Your task to perform on an android device: Open Chrome and go to settings Image 0: 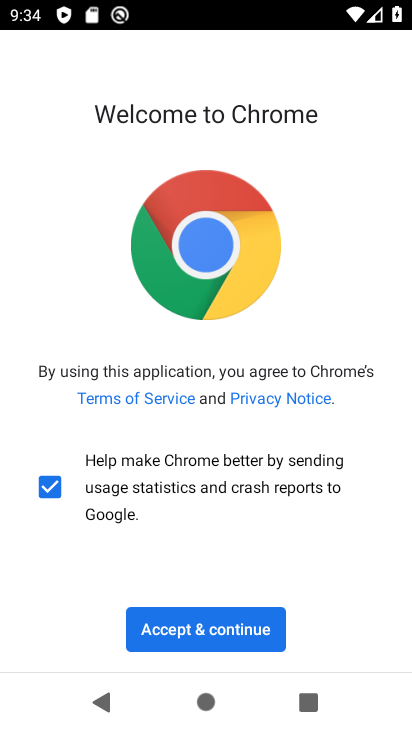
Step 0: click (208, 628)
Your task to perform on an android device: Open Chrome and go to settings Image 1: 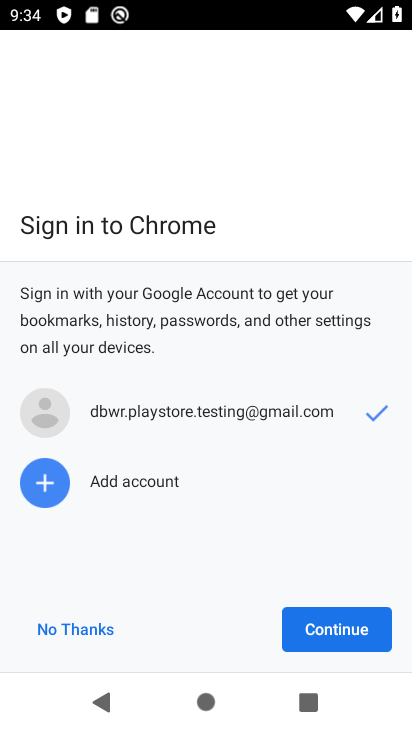
Step 1: click (317, 622)
Your task to perform on an android device: Open Chrome and go to settings Image 2: 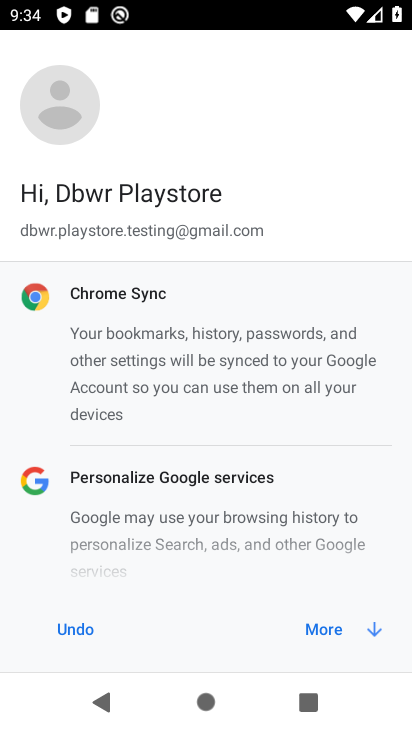
Step 2: click (317, 622)
Your task to perform on an android device: Open Chrome and go to settings Image 3: 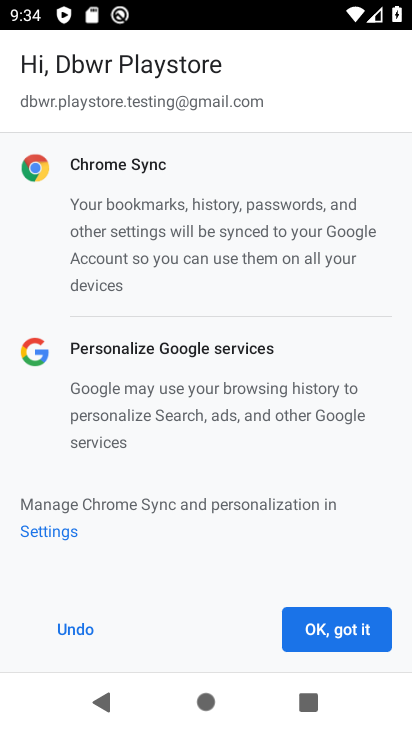
Step 3: click (317, 622)
Your task to perform on an android device: Open Chrome and go to settings Image 4: 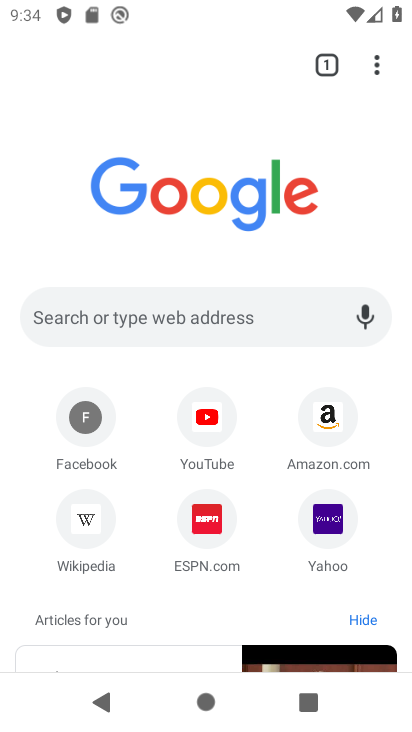
Step 4: click (376, 65)
Your task to perform on an android device: Open Chrome and go to settings Image 5: 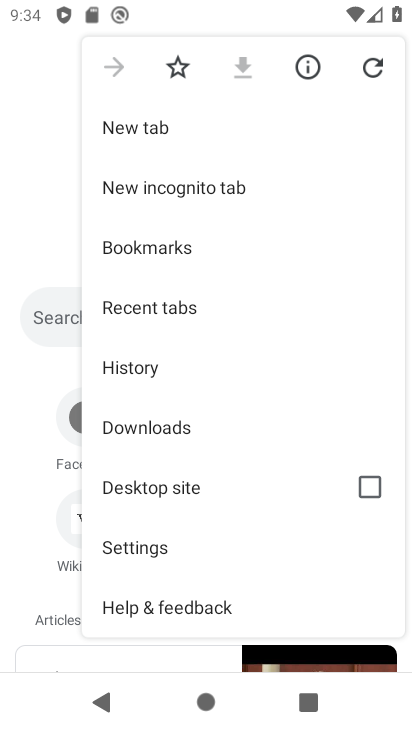
Step 5: click (134, 548)
Your task to perform on an android device: Open Chrome and go to settings Image 6: 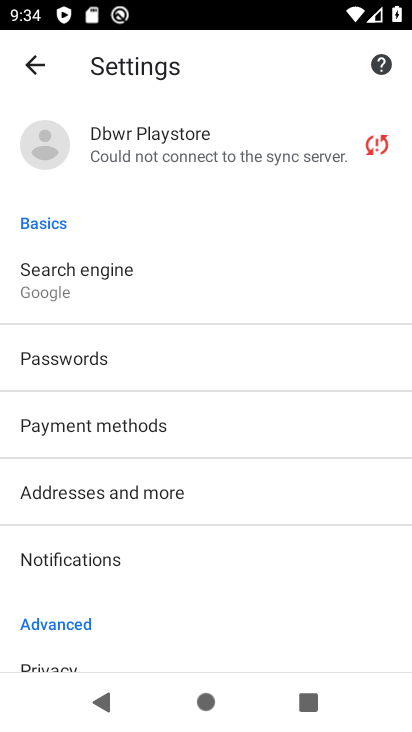
Step 6: task complete